Your task to perform on an android device: uninstall "VLC for Android" Image 0: 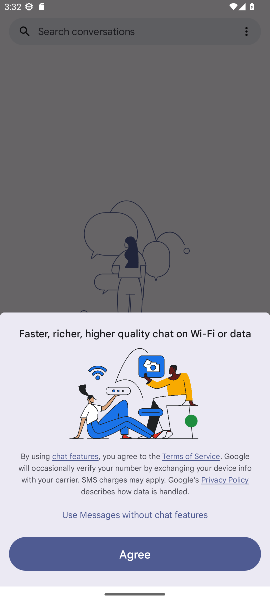
Step 0: press home button
Your task to perform on an android device: uninstall "VLC for Android" Image 1: 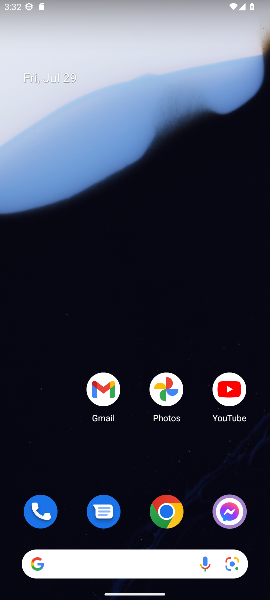
Step 1: drag from (24, 545) to (178, 86)
Your task to perform on an android device: uninstall "VLC for Android" Image 2: 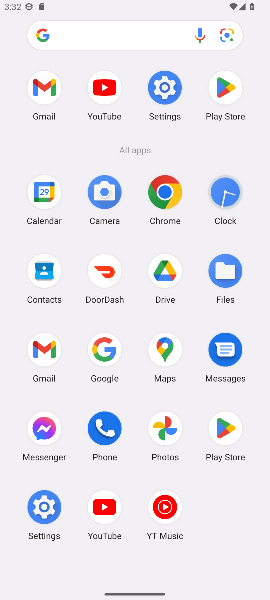
Step 2: click (218, 431)
Your task to perform on an android device: uninstall "VLC for Android" Image 3: 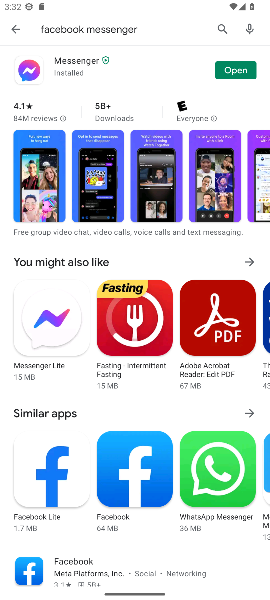
Step 3: click (14, 37)
Your task to perform on an android device: uninstall "VLC for Android" Image 4: 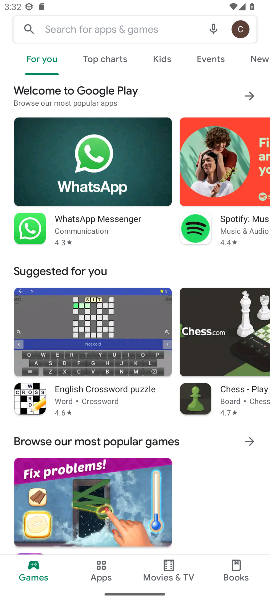
Step 4: click (54, 30)
Your task to perform on an android device: uninstall "VLC for Android" Image 5: 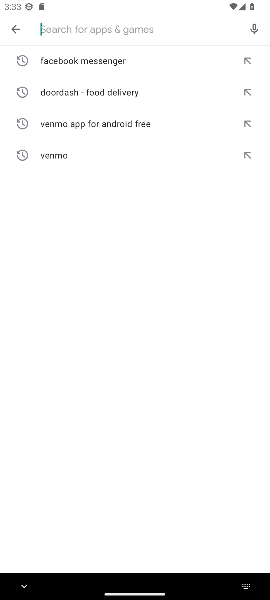
Step 5: type "VLC"
Your task to perform on an android device: uninstall "VLC for Android" Image 6: 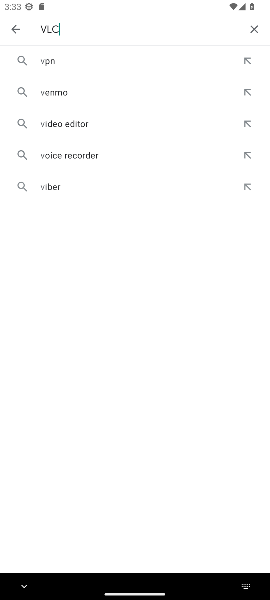
Step 6: type ""
Your task to perform on an android device: uninstall "VLC for Android" Image 7: 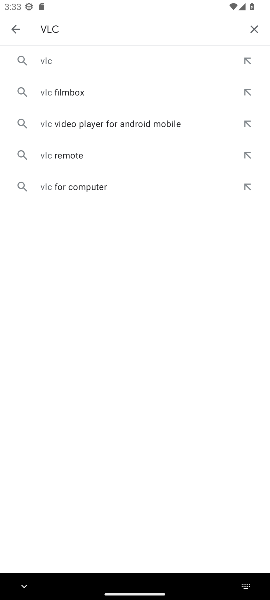
Step 7: click (38, 60)
Your task to perform on an android device: uninstall "VLC for Android" Image 8: 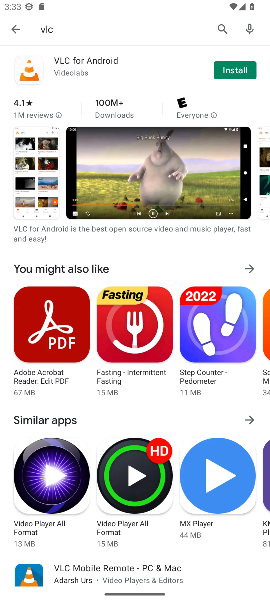
Step 8: task complete